Your task to perform on an android device: How do I get to the nearest Apple Store? Image 0: 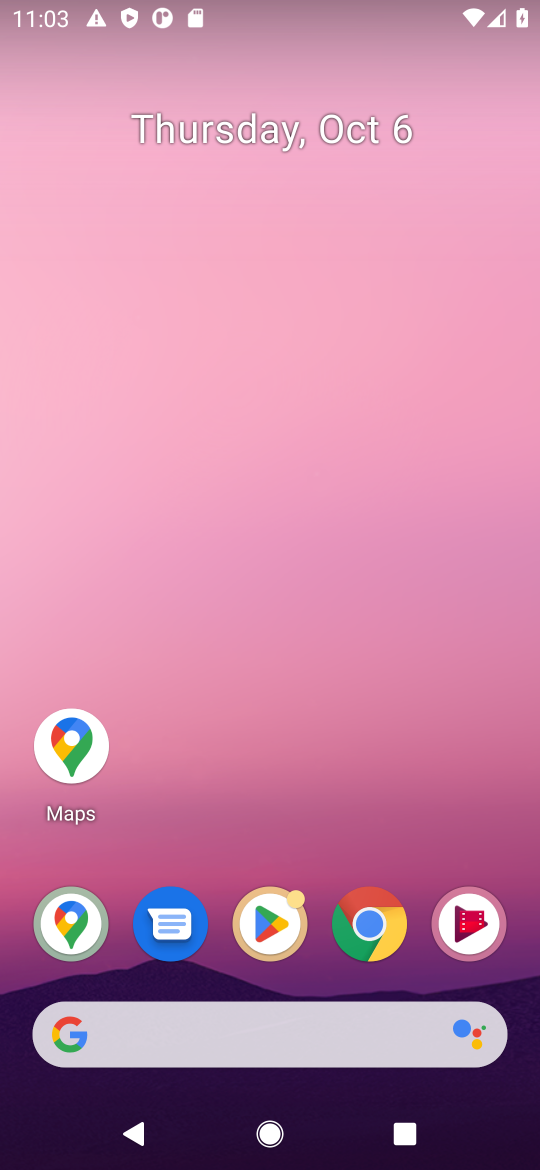
Step 0: click (380, 919)
Your task to perform on an android device: How do I get to the nearest Apple Store? Image 1: 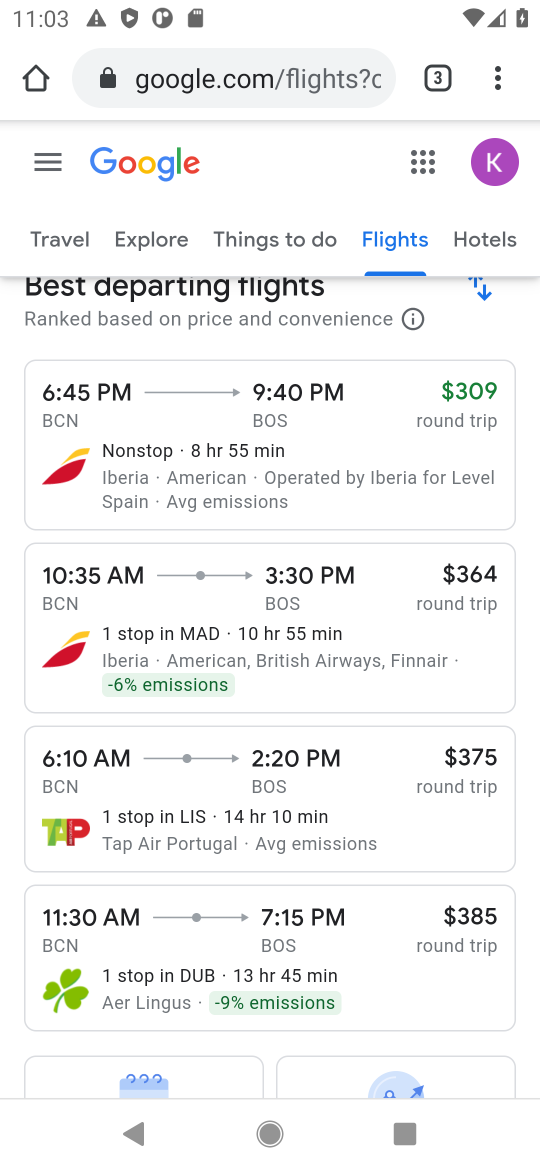
Step 1: click (329, 79)
Your task to perform on an android device: How do I get to the nearest Apple Store? Image 2: 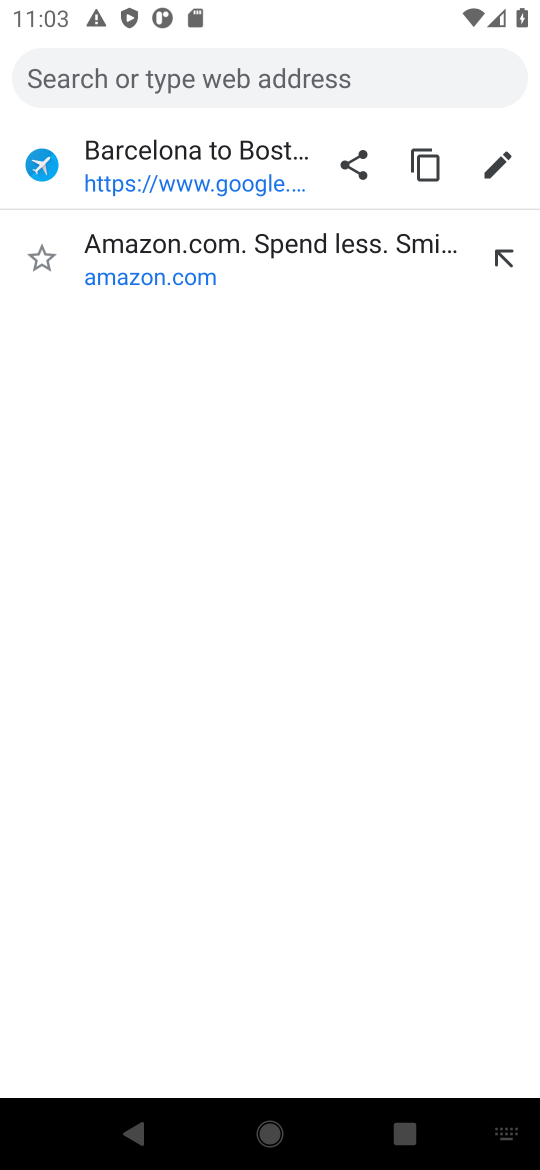
Step 2: type "nearest Apple Store"
Your task to perform on an android device: How do I get to the nearest Apple Store? Image 3: 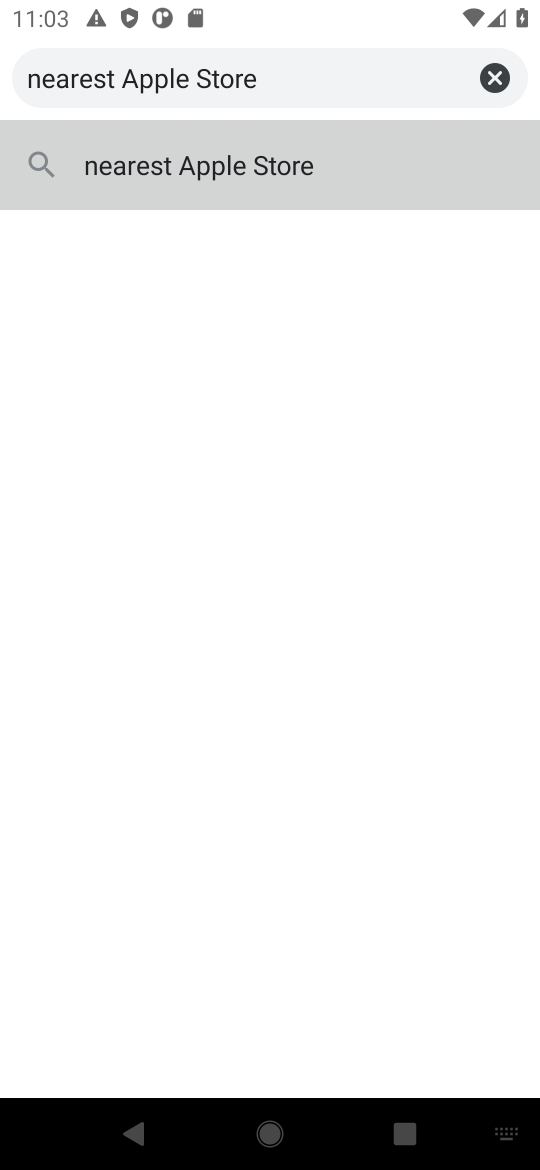
Step 3: click (218, 174)
Your task to perform on an android device: How do I get to the nearest Apple Store? Image 4: 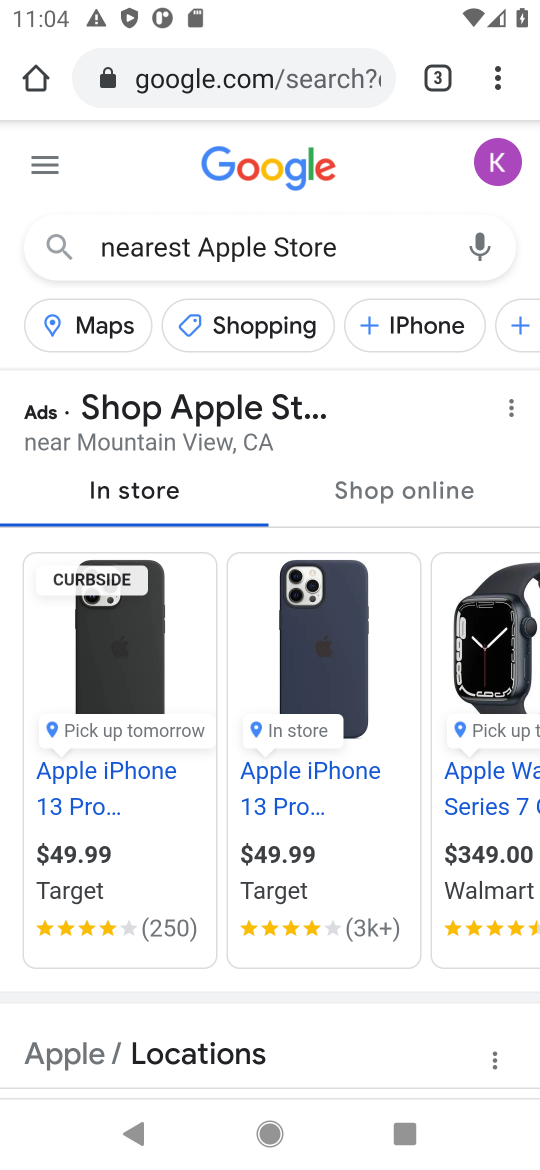
Step 4: task complete